Your task to perform on an android device: turn off priority inbox in the gmail app Image 0: 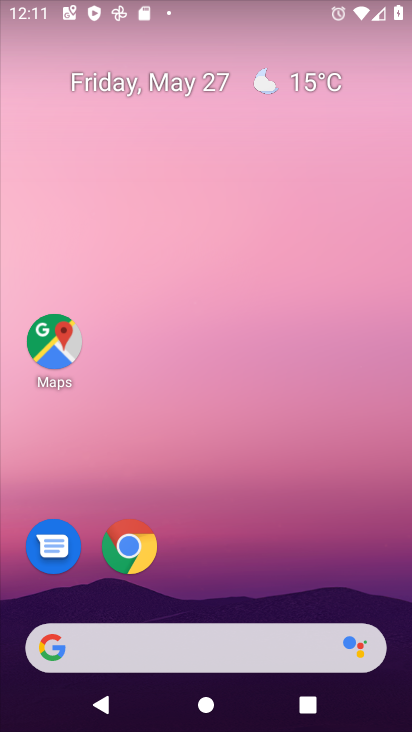
Step 0: drag from (234, 569) to (222, 101)
Your task to perform on an android device: turn off priority inbox in the gmail app Image 1: 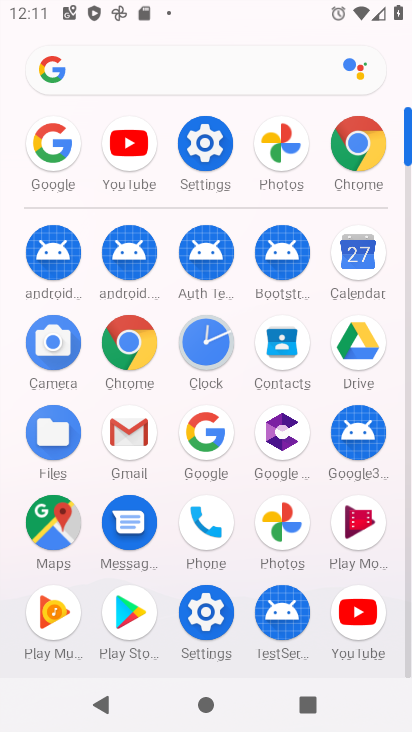
Step 1: click (133, 438)
Your task to perform on an android device: turn off priority inbox in the gmail app Image 2: 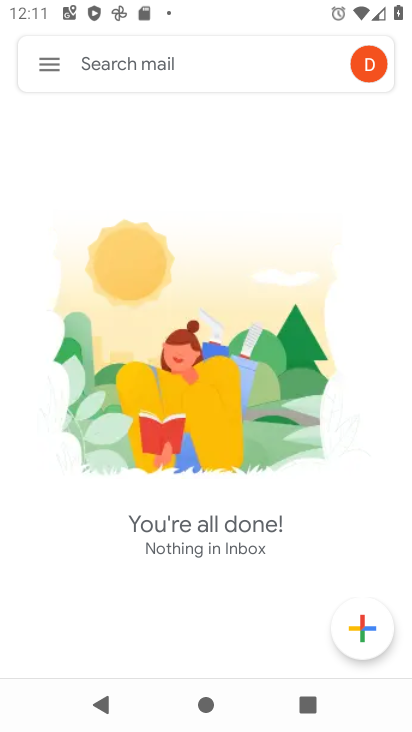
Step 2: click (48, 64)
Your task to perform on an android device: turn off priority inbox in the gmail app Image 3: 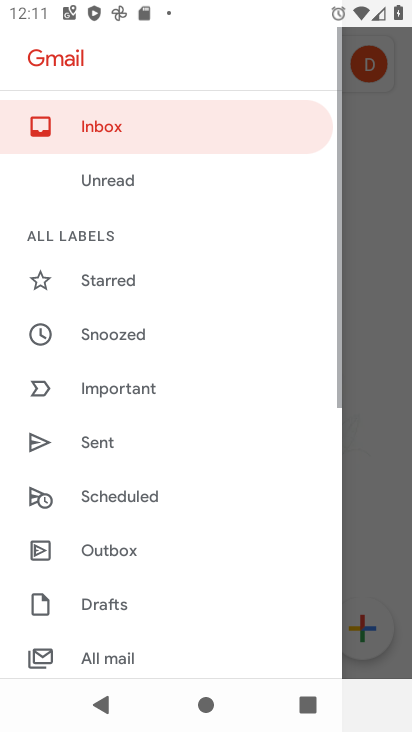
Step 3: drag from (158, 611) to (216, 151)
Your task to perform on an android device: turn off priority inbox in the gmail app Image 4: 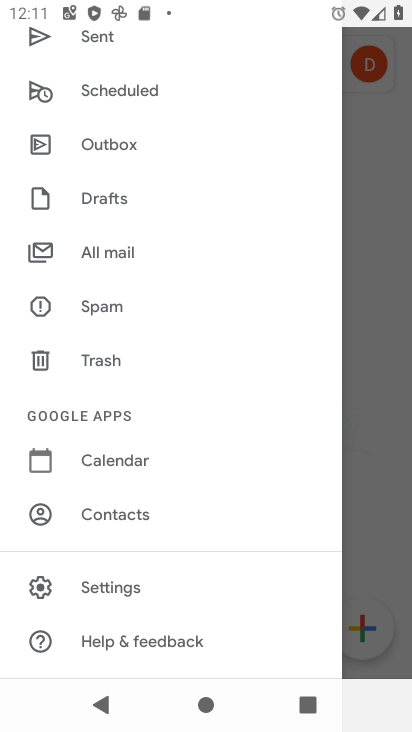
Step 4: click (103, 589)
Your task to perform on an android device: turn off priority inbox in the gmail app Image 5: 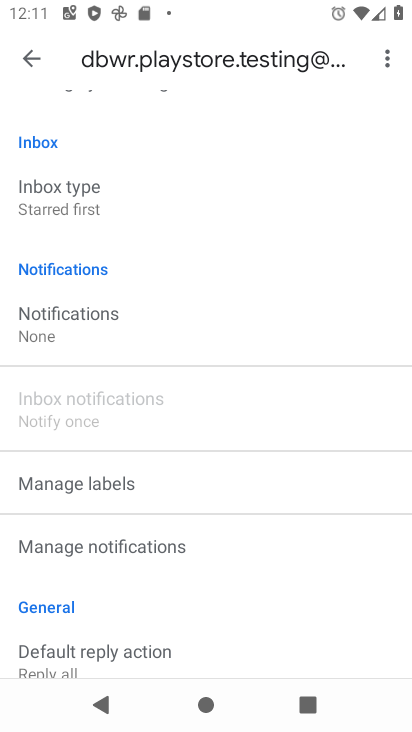
Step 5: drag from (160, 309) to (195, 528)
Your task to perform on an android device: turn off priority inbox in the gmail app Image 6: 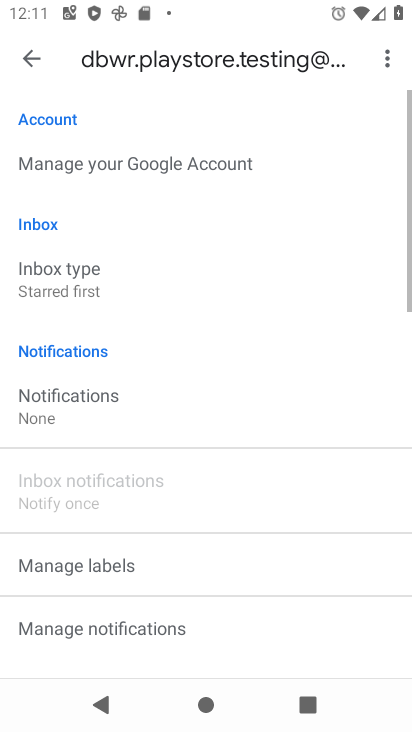
Step 6: drag from (148, 617) to (206, 668)
Your task to perform on an android device: turn off priority inbox in the gmail app Image 7: 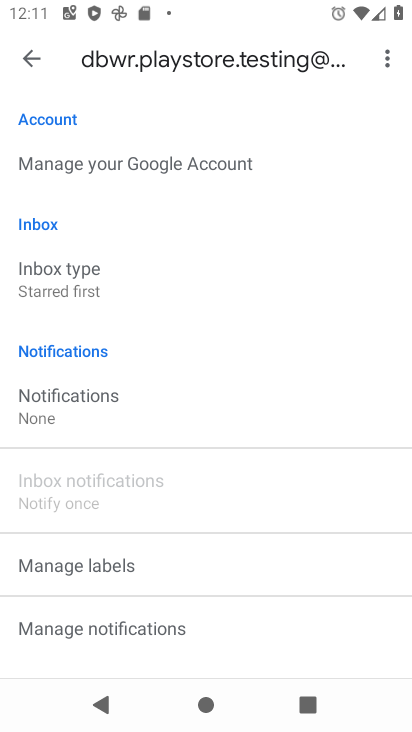
Step 7: click (112, 275)
Your task to perform on an android device: turn off priority inbox in the gmail app Image 8: 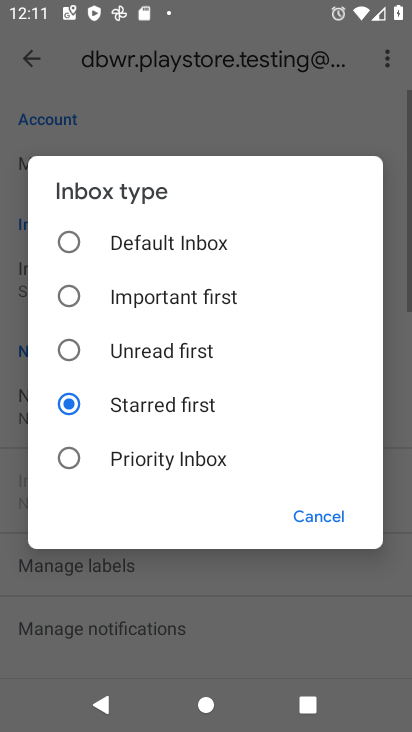
Step 8: click (51, 231)
Your task to perform on an android device: turn off priority inbox in the gmail app Image 9: 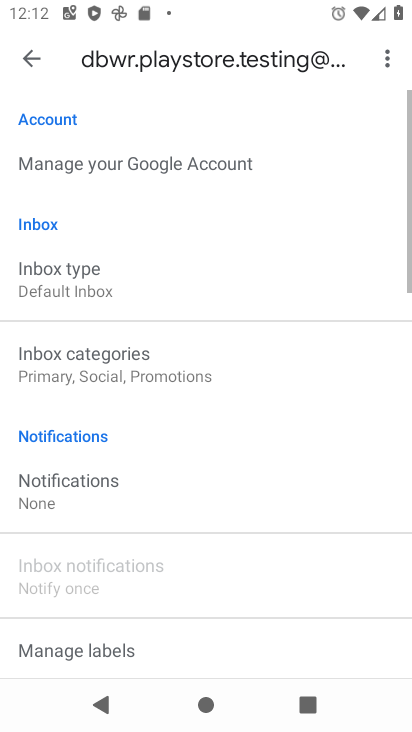
Step 9: task complete